Your task to perform on an android device: Show me the alarms in the clock app Image 0: 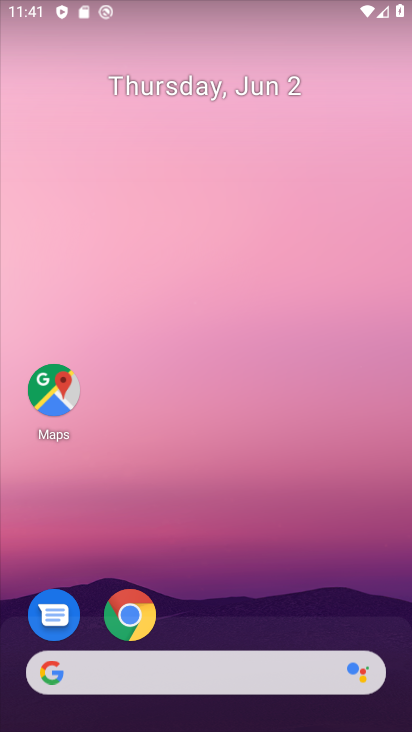
Step 0: drag from (148, 579) to (209, 147)
Your task to perform on an android device: Show me the alarms in the clock app Image 1: 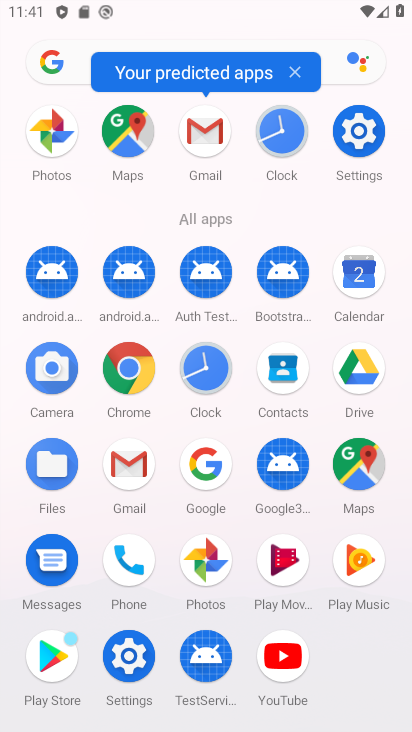
Step 1: click (205, 377)
Your task to perform on an android device: Show me the alarms in the clock app Image 2: 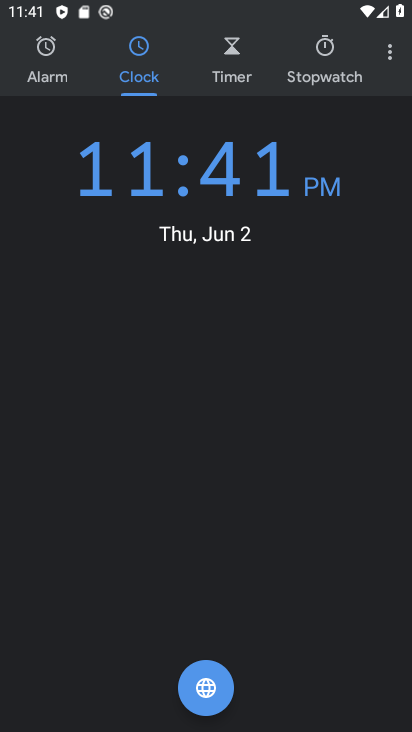
Step 2: click (63, 83)
Your task to perform on an android device: Show me the alarms in the clock app Image 3: 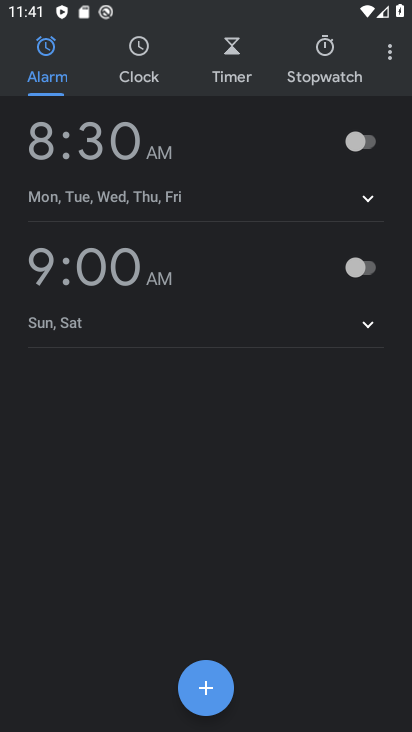
Step 3: task complete